Your task to perform on an android device: Go to display settings Image 0: 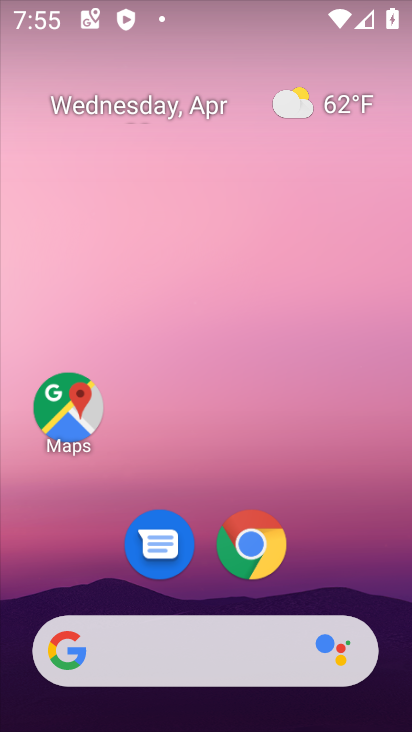
Step 0: drag from (325, 536) to (320, 77)
Your task to perform on an android device: Go to display settings Image 1: 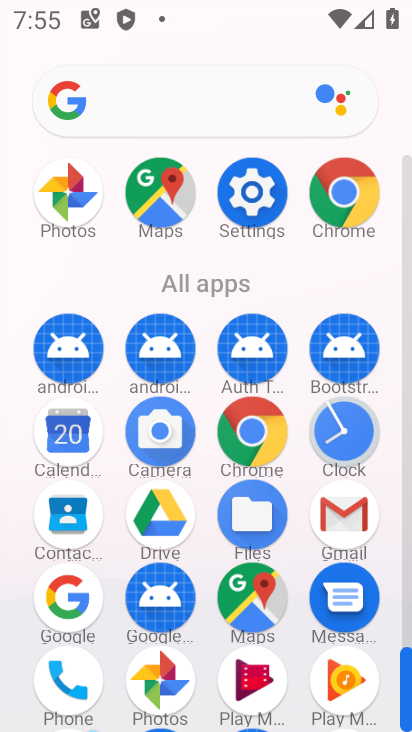
Step 1: click (250, 193)
Your task to perform on an android device: Go to display settings Image 2: 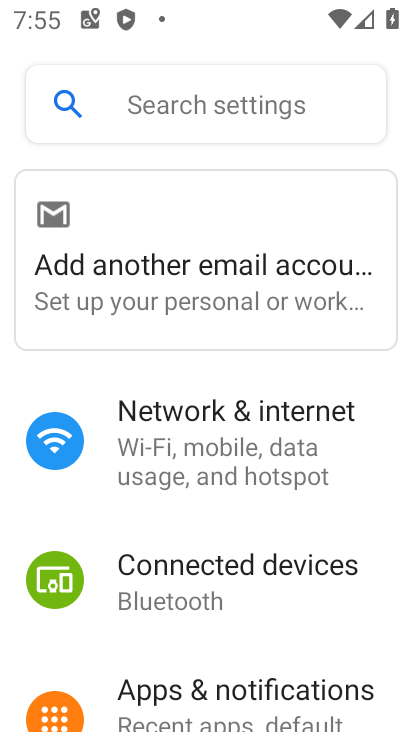
Step 2: drag from (361, 628) to (371, 227)
Your task to perform on an android device: Go to display settings Image 3: 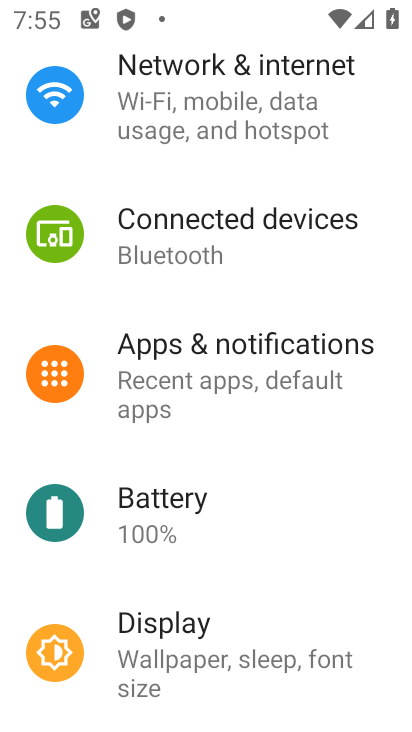
Step 3: click (195, 644)
Your task to perform on an android device: Go to display settings Image 4: 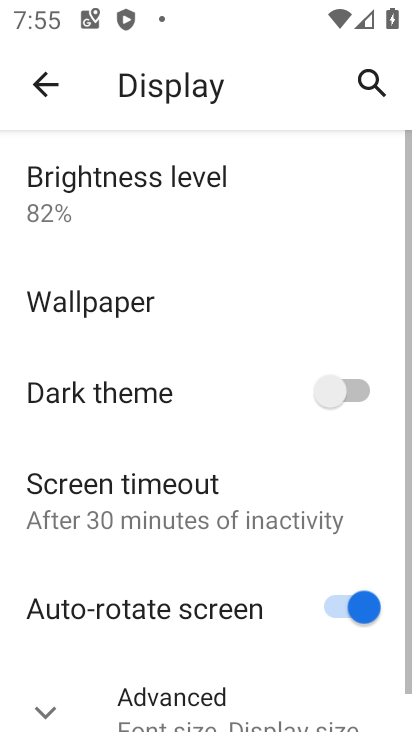
Step 4: drag from (185, 616) to (164, 280)
Your task to perform on an android device: Go to display settings Image 5: 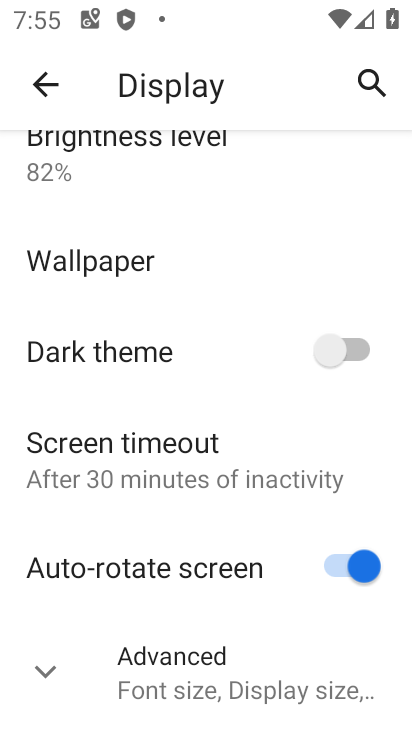
Step 5: click (98, 690)
Your task to perform on an android device: Go to display settings Image 6: 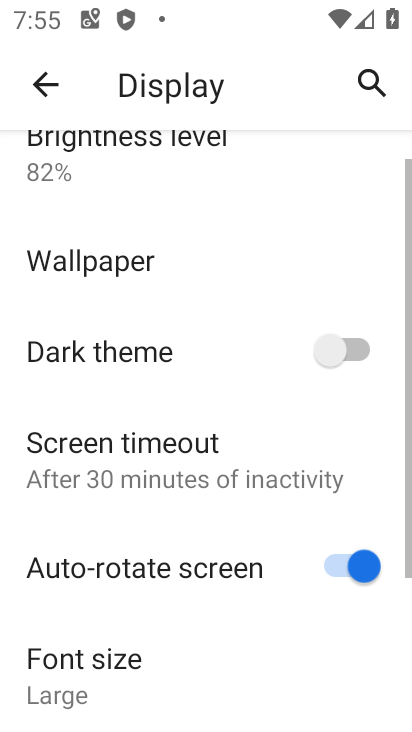
Step 6: task complete